Your task to perform on an android device: Add razer thresher to the cart on target.com Image 0: 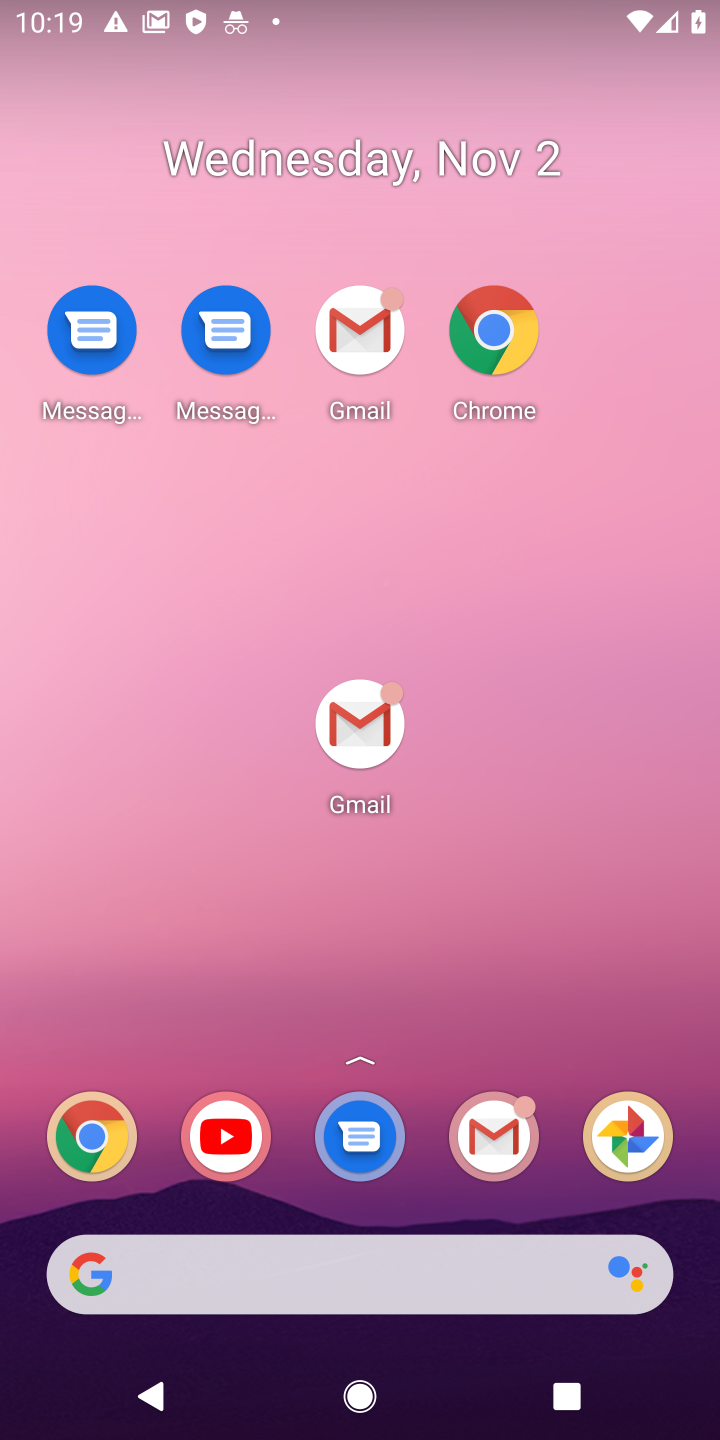
Step 0: drag from (271, 1162) to (300, 499)
Your task to perform on an android device: Add razer thresher to the cart on target.com Image 1: 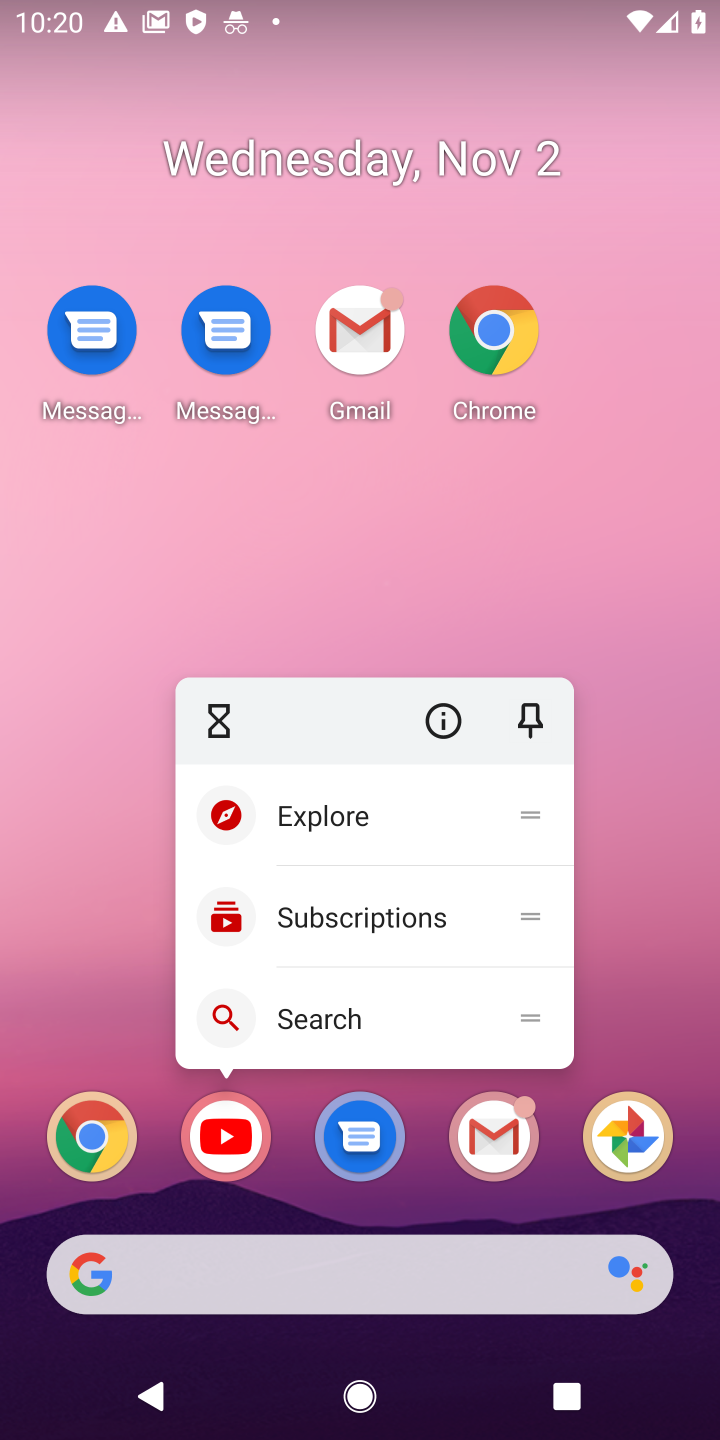
Step 1: click (173, 580)
Your task to perform on an android device: Add razer thresher to the cart on target.com Image 2: 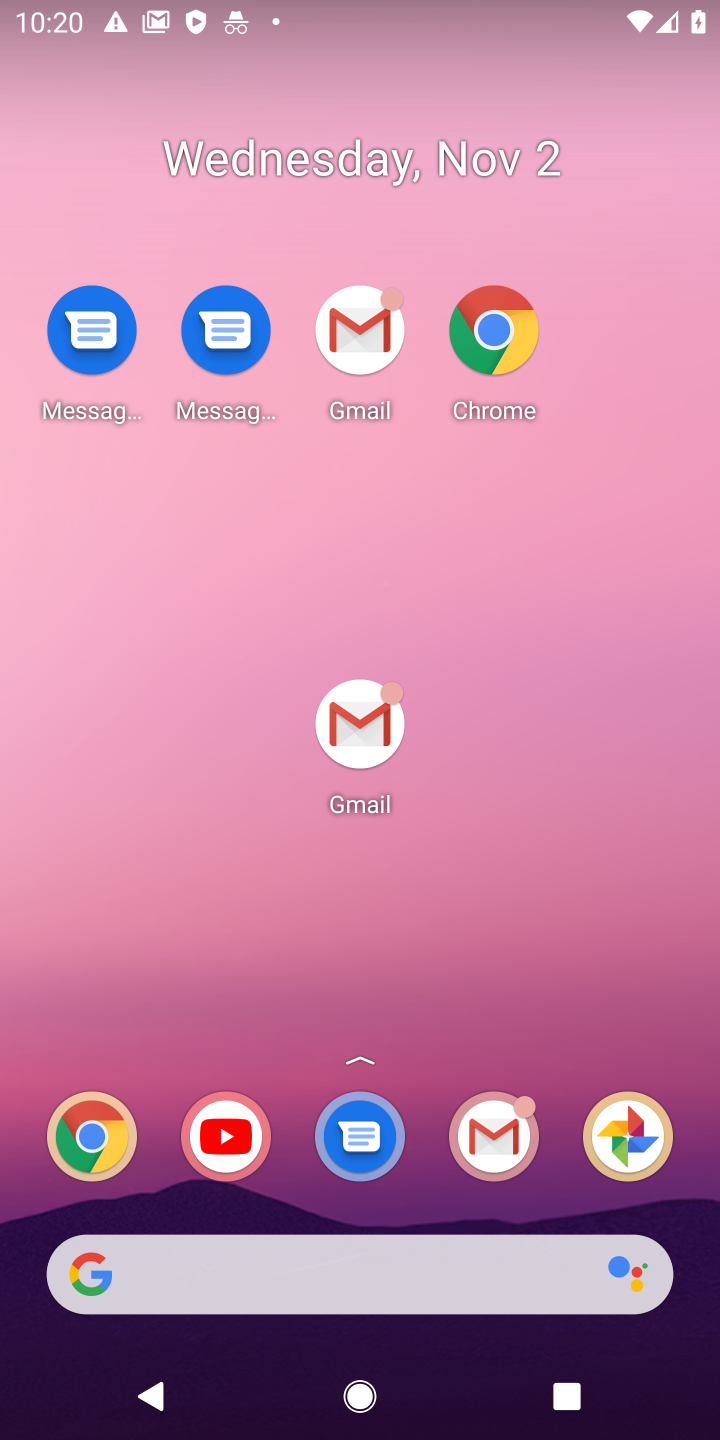
Step 2: drag from (286, 764) to (248, 148)
Your task to perform on an android device: Add razer thresher to the cart on target.com Image 3: 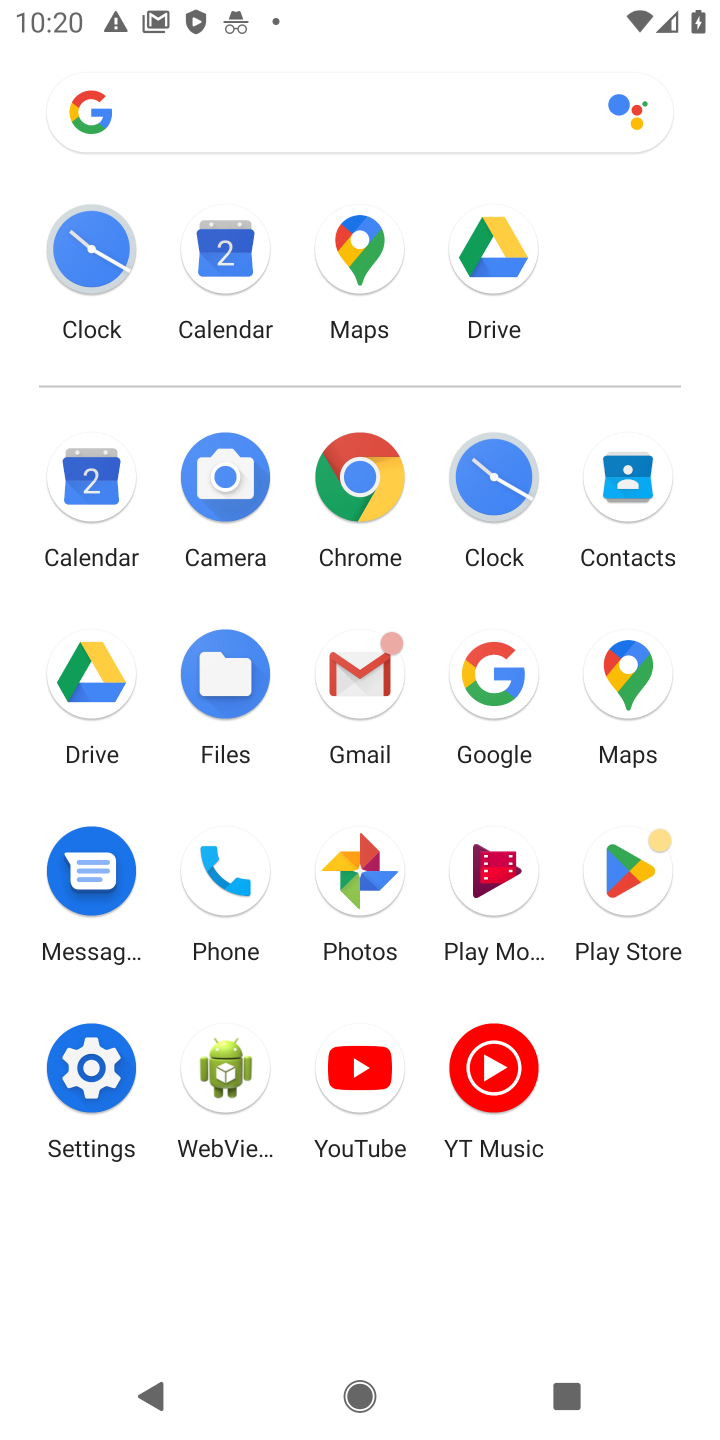
Step 3: click (498, 672)
Your task to perform on an android device: Add razer thresher to the cart on target.com Image 4: 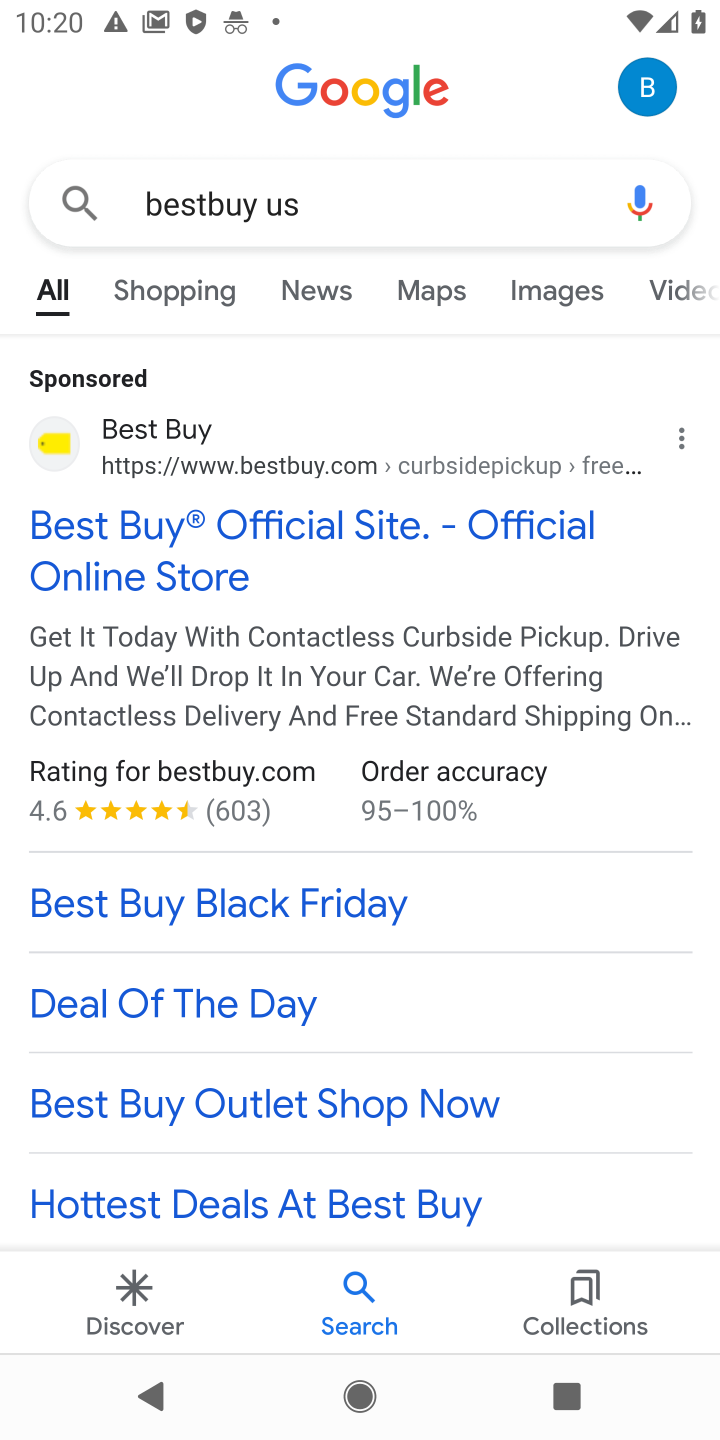
Step 4: click (364, 195)
Your task to perform on an android device: Add razer thresher to the cart on target.com Image 5: 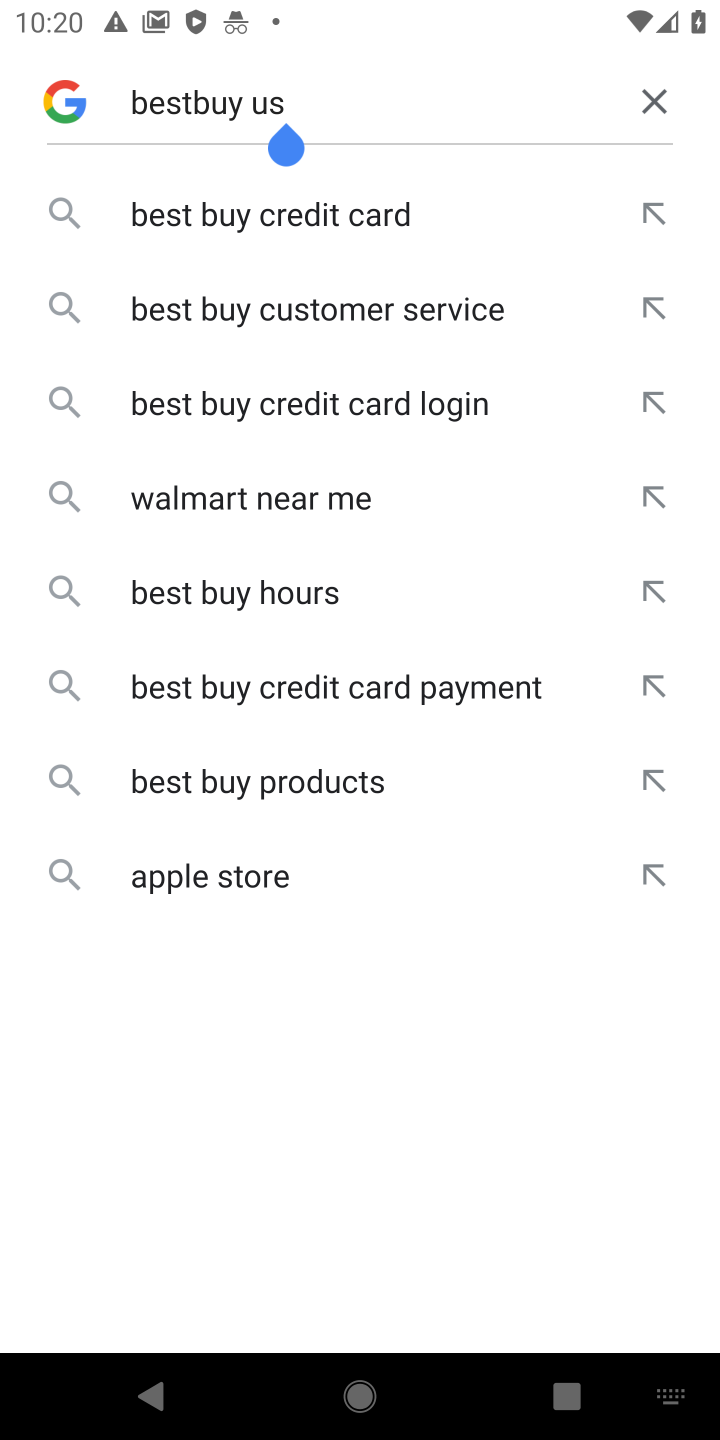
Step 5: click (642, 98)
Your task to perform on an android device: Add razer thresher to the cart on target.com Image 6: 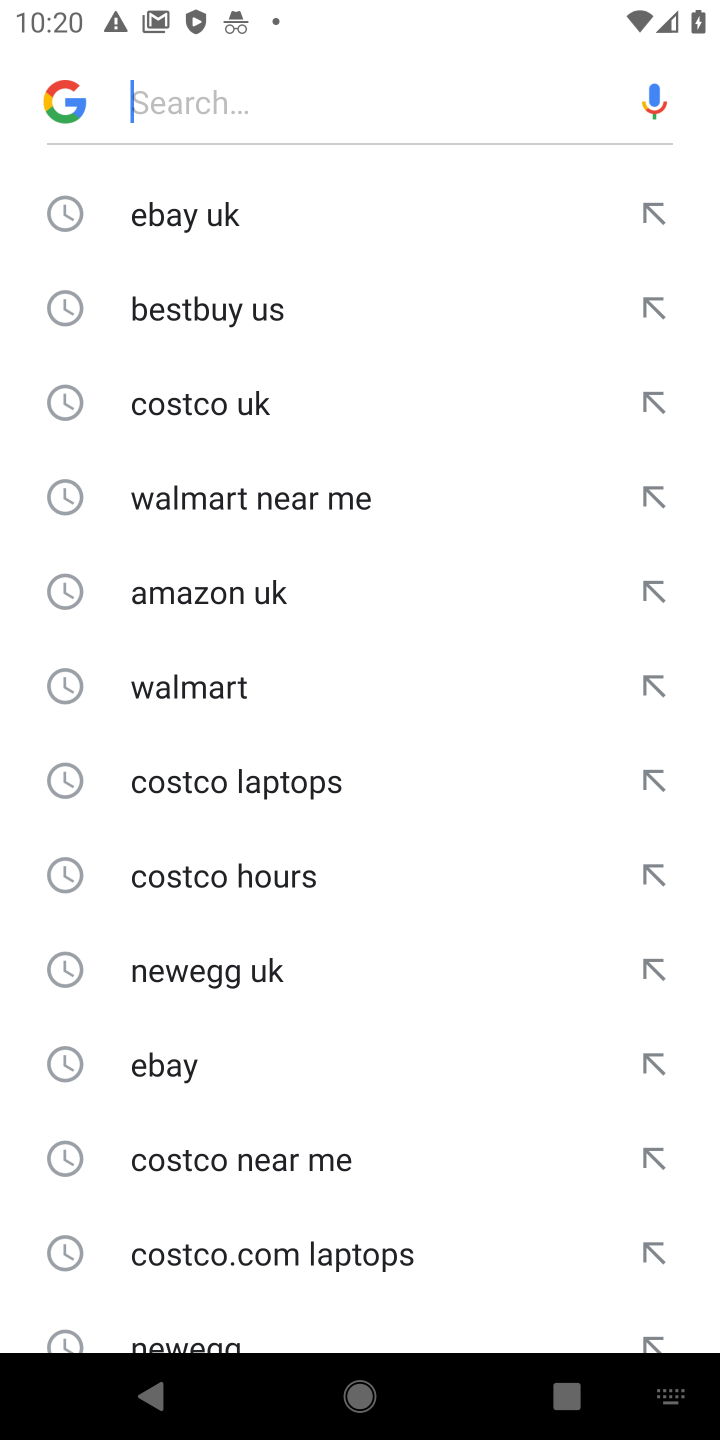
Step 6: click (399, 98)
Your task to perform on an android device: Add razer thresher to the cart on target.com Image 7: 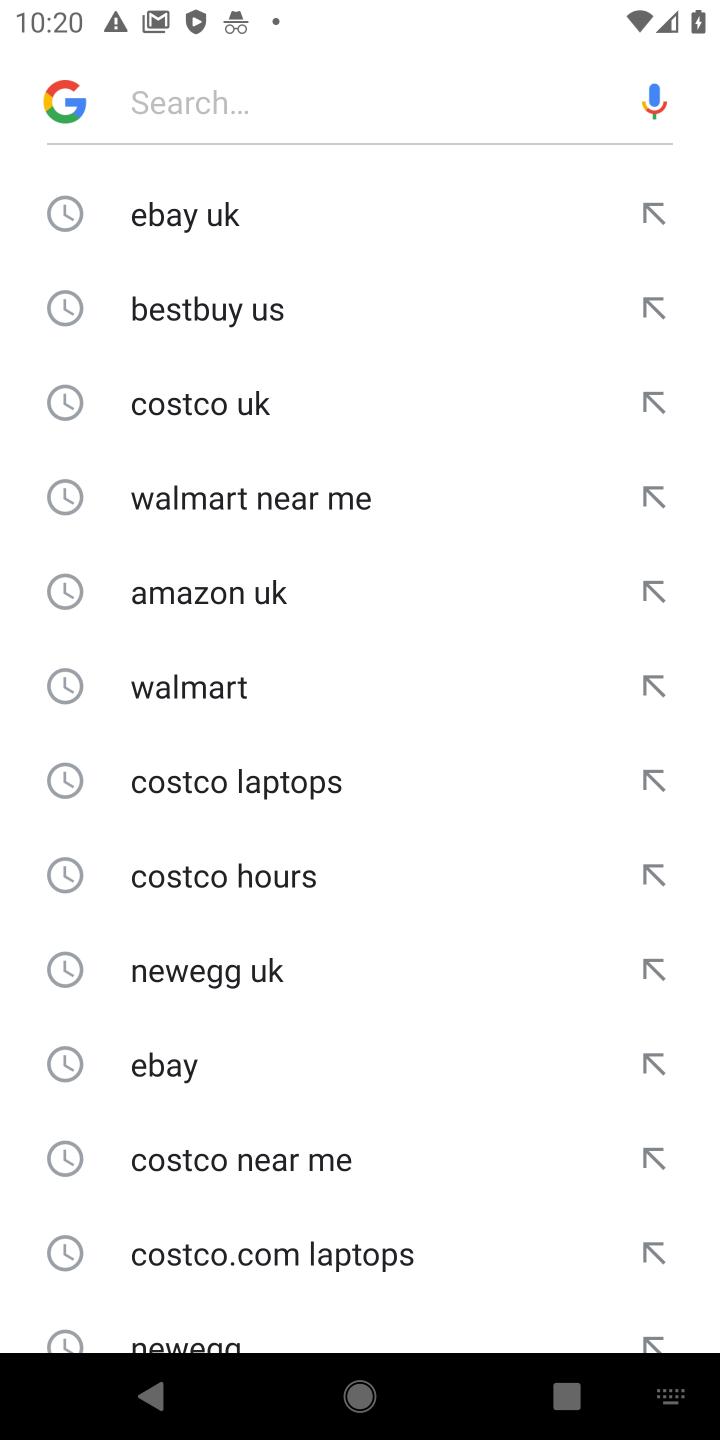
Step 7: type "target "
Your task to perform on an android device: Add razer thresher to the cart on target.com Image 8: 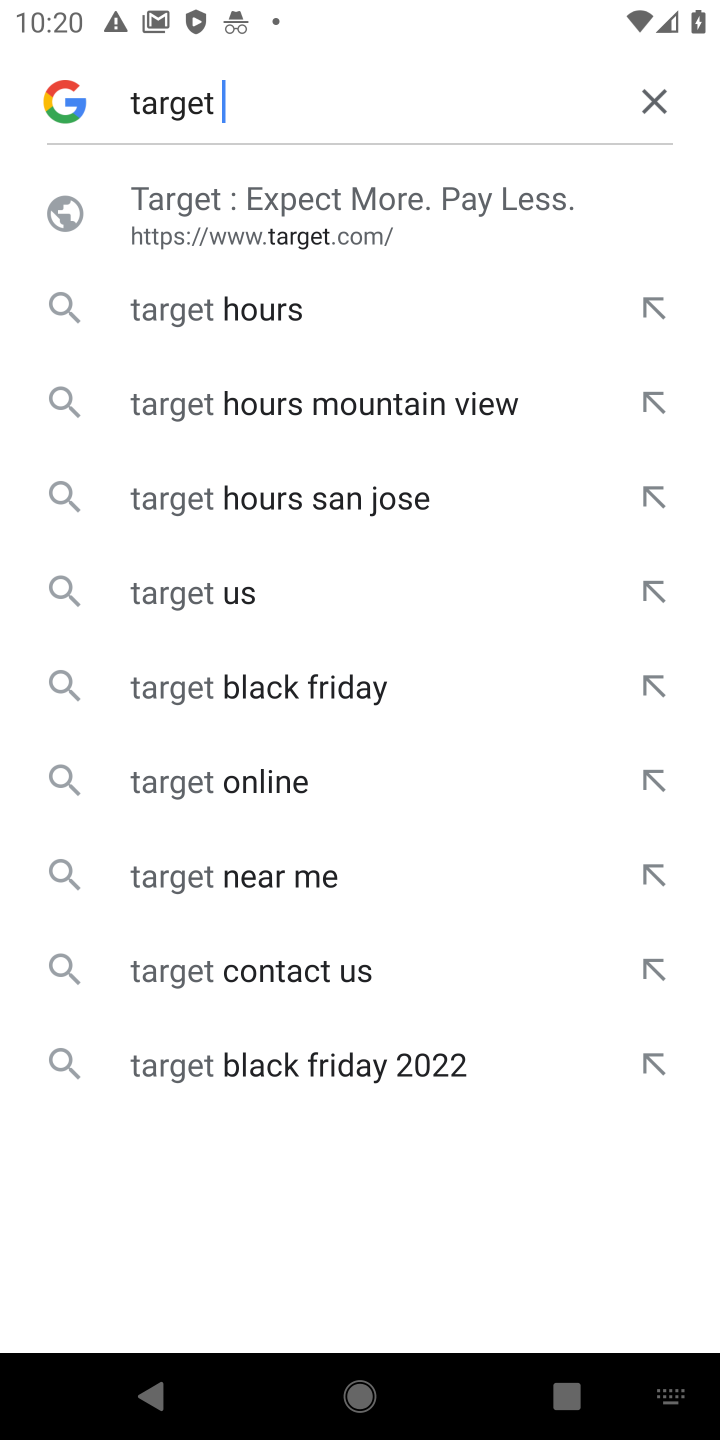
Step 8: click (205, 214)
Your task to perform on an android device: Add razer thresher to the cart on target.com Image 9: 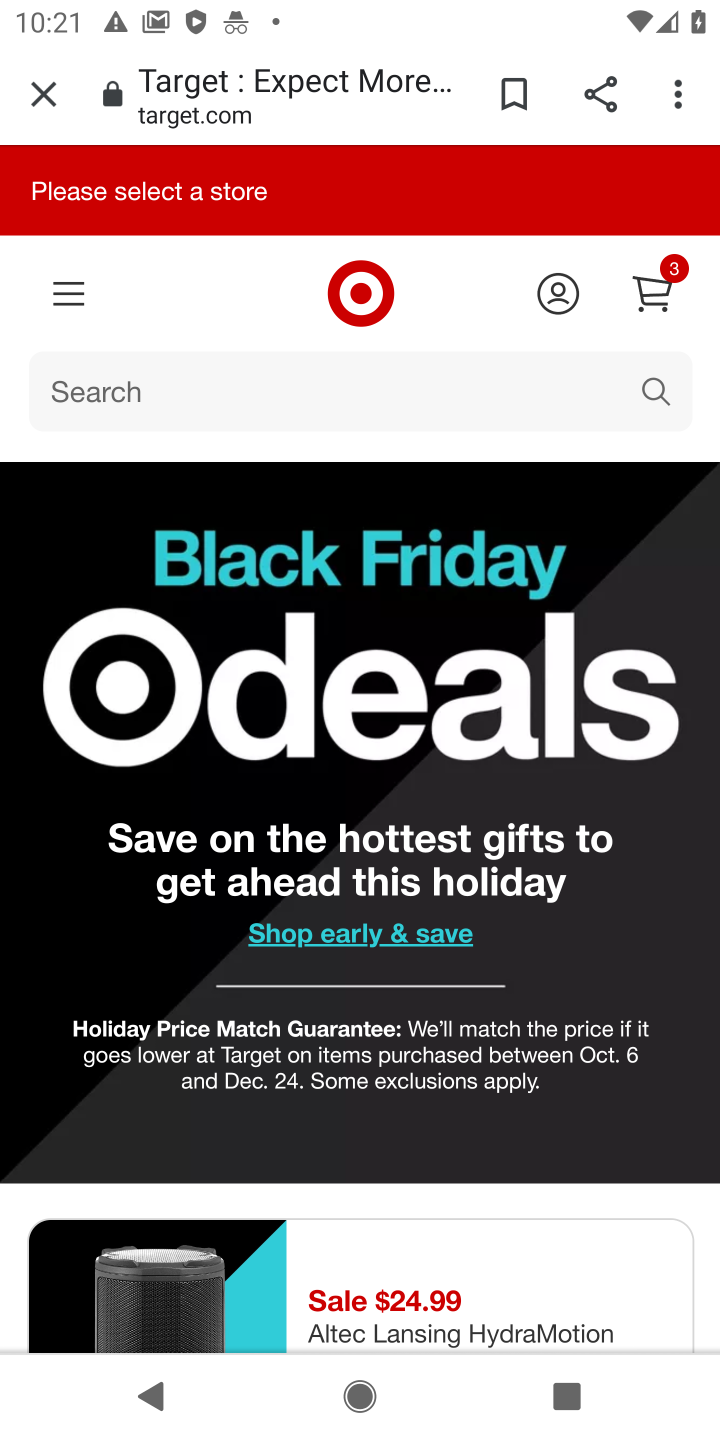
Step 9: click (218, 391)
Your task to perform on an android device: Add razer thresher to the cart on target.com Image 10: 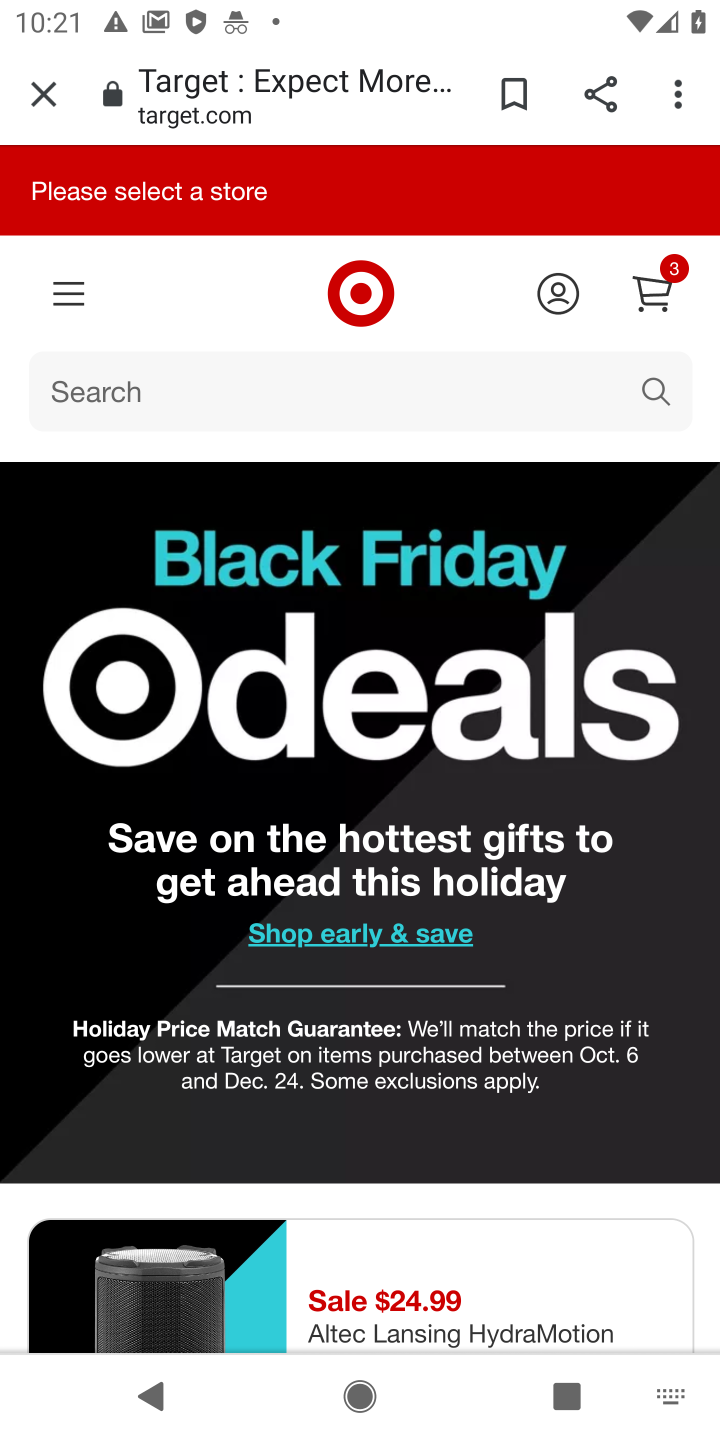
Step 10: click (323, 390)
Your task to perform on an android device: Add razer thresher to the cart on target.com Image 11: 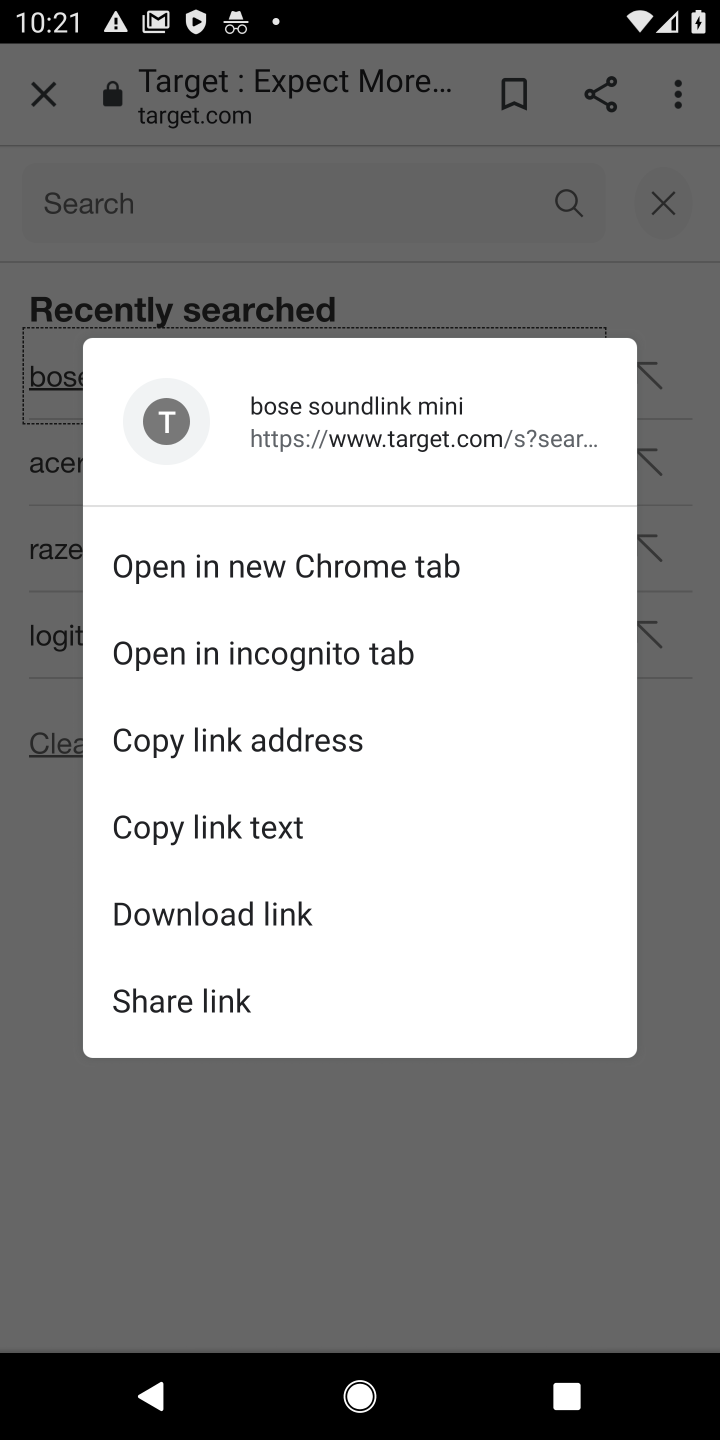
Step 11: click (300, 179)
Your task to perform on an android device: Add razer thresher to the cart on target.com Image 12: 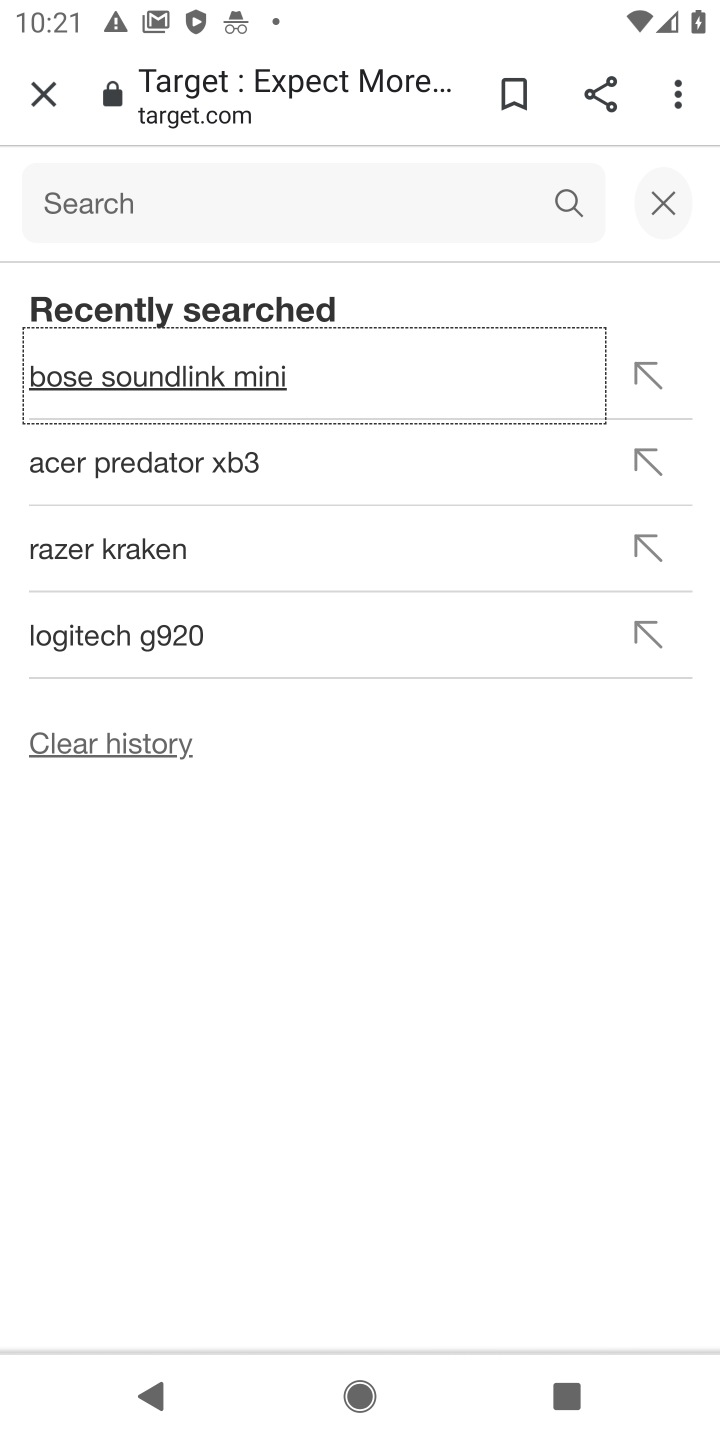
Step 12: click (379, 185)
Your task to perform on an android device: Add razer thresher to the cart on target.com Image 13: 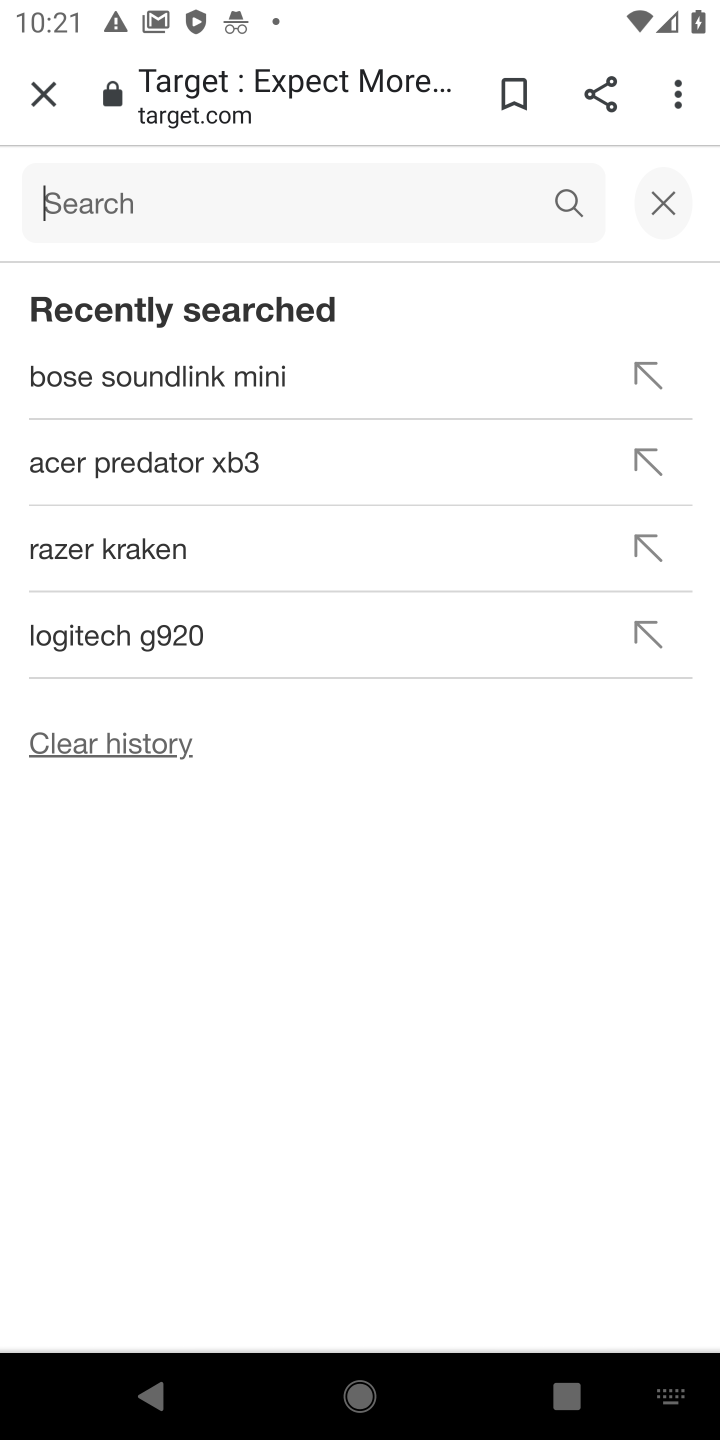
Step 13: type "razer thresher "
Your task to perform on an android device: Add razer thresher to the cart on target.com Image 14: 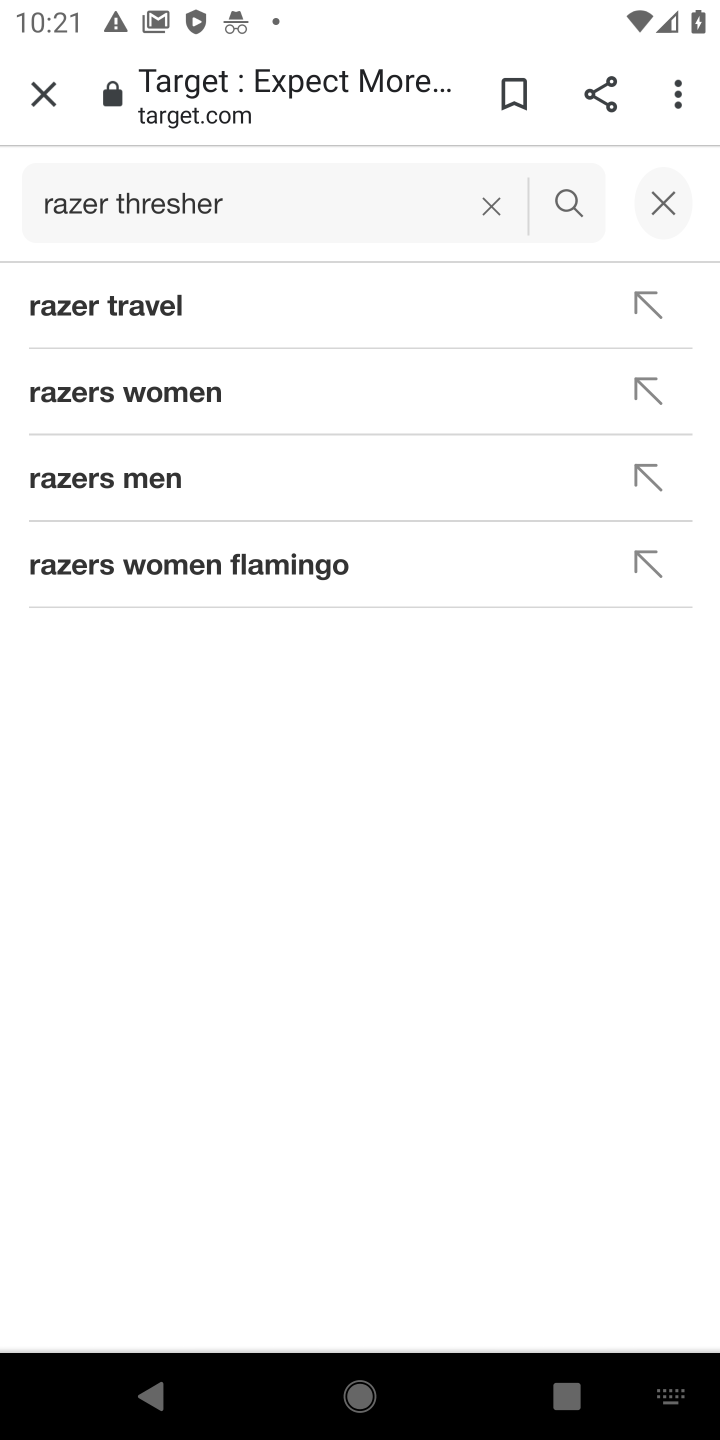
Step 14: click (566, 209)
Your task to perform on an android device: Add razer thresher to the cart on target.com Image 15: 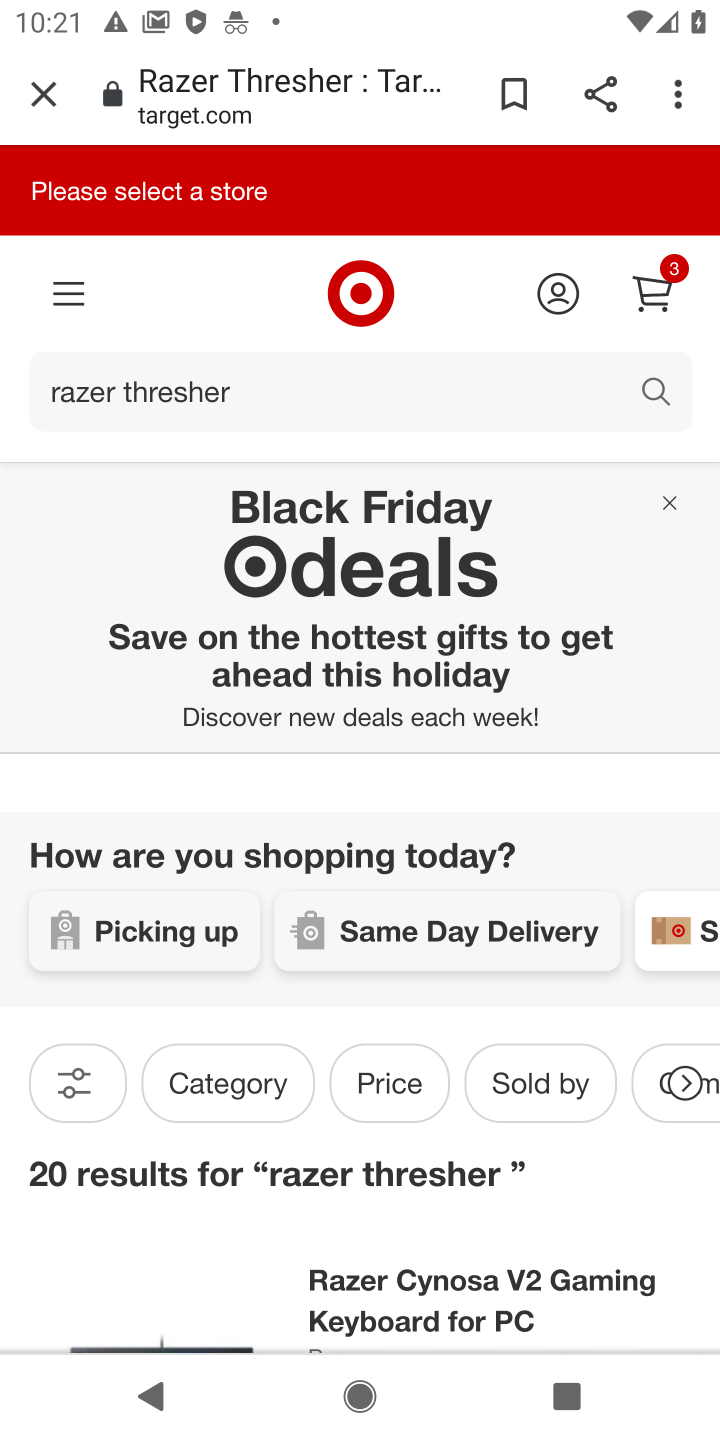
Step 15: drag from (397, 1235) to (449, 421)
Your task to perform on an android device: Add razer thresher to the cart on target.com Image 16: 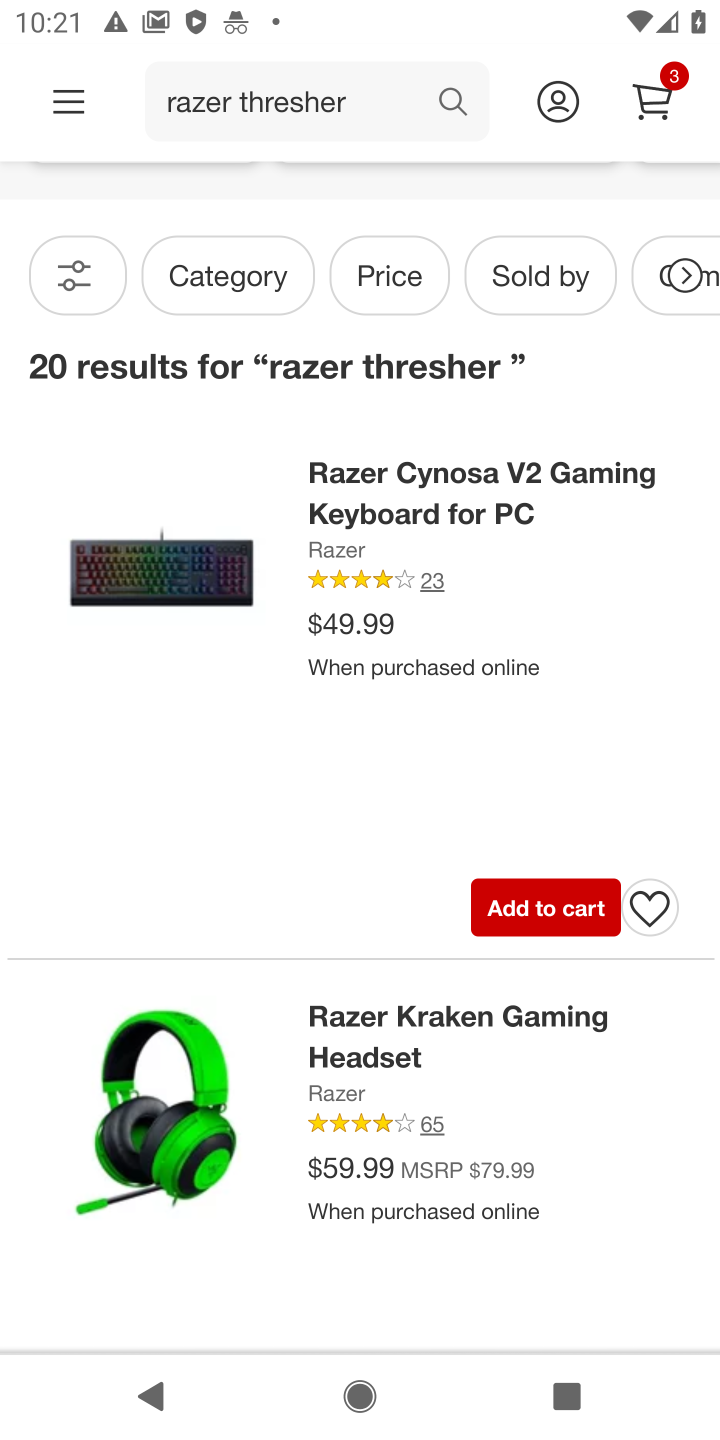
Step 16: drag from (393, 1181) to (458, 385)
Your task to perform on an android device: Add razer thresher to the cart on target.com Image 17: 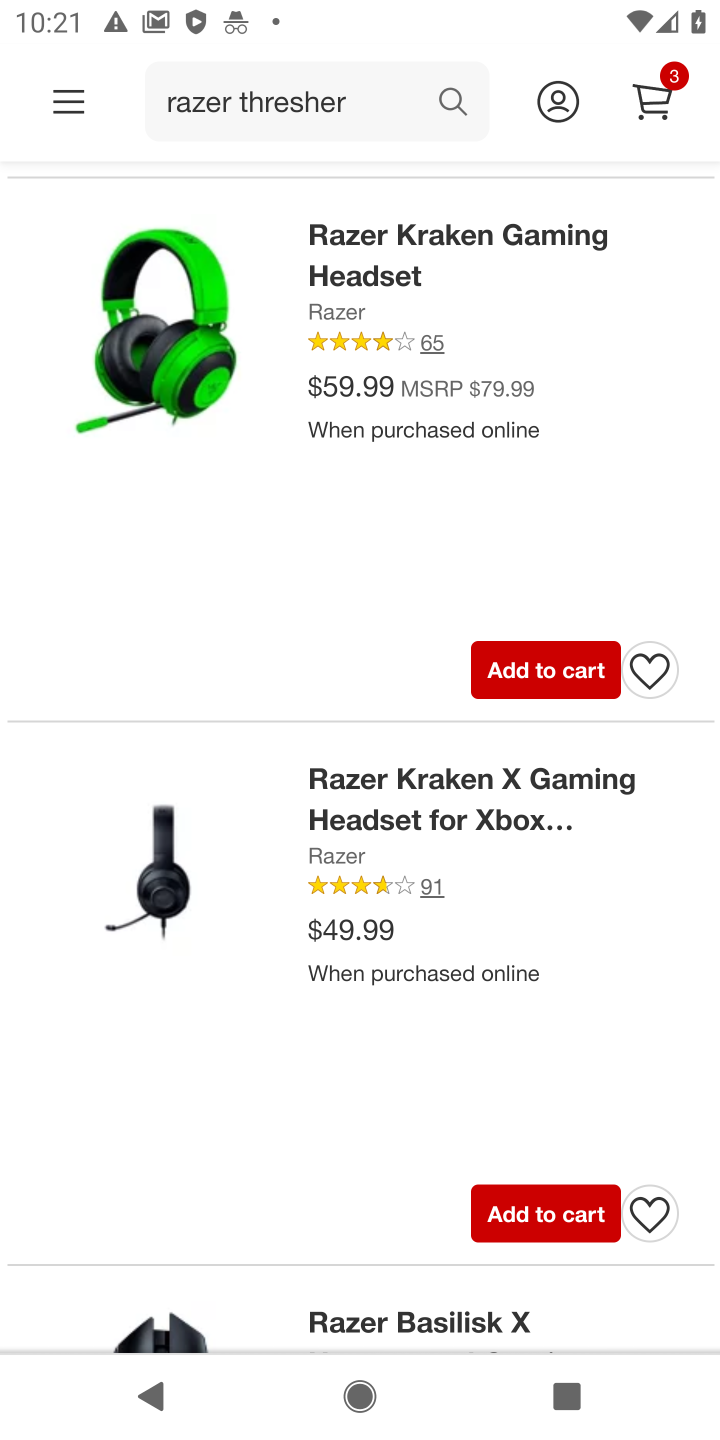
Step 17: drag from (302, 980) to (460, 195)
Your task to perform on an android device: Add razer thresher to the cart on target.com Image 18: 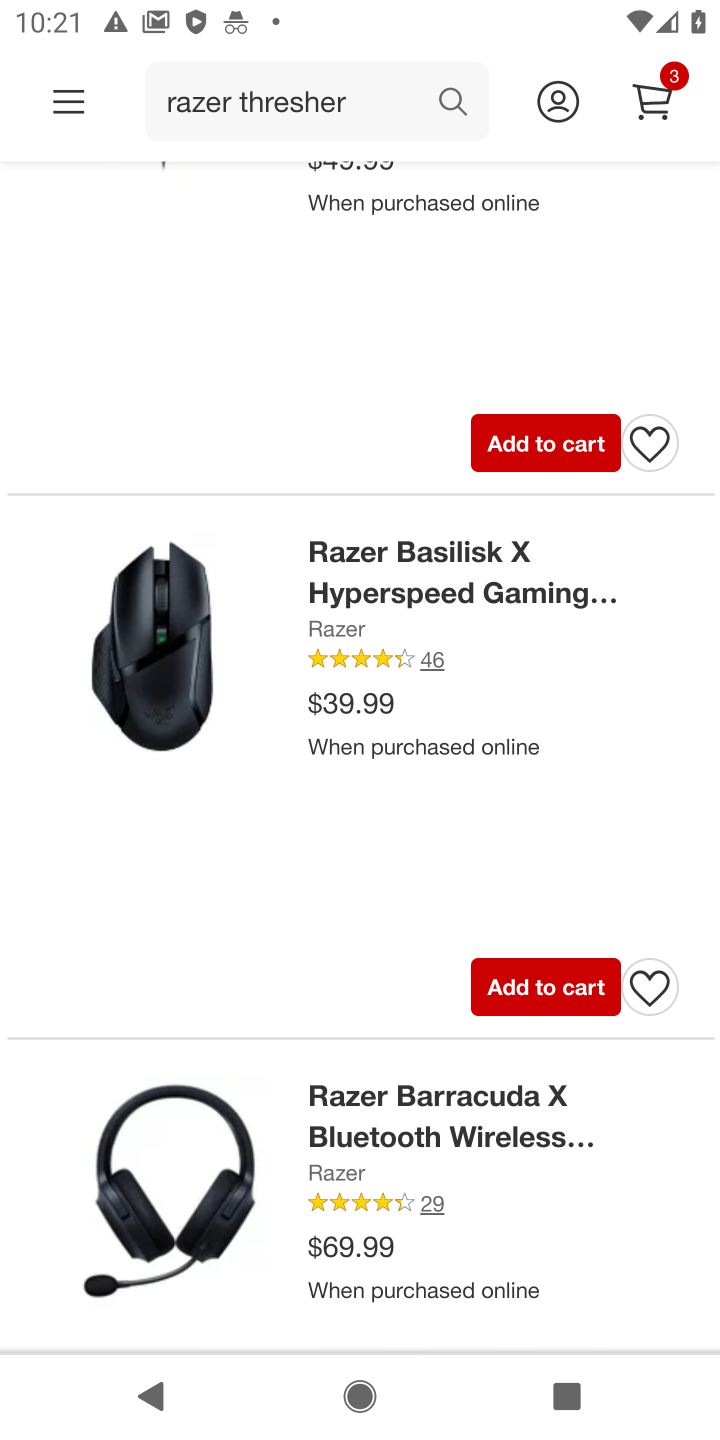
Step 18: drag from (309, 170) to (289, 469)
Your task to perform on an android device: Add razer thresher to the cart on target.com Image 19: 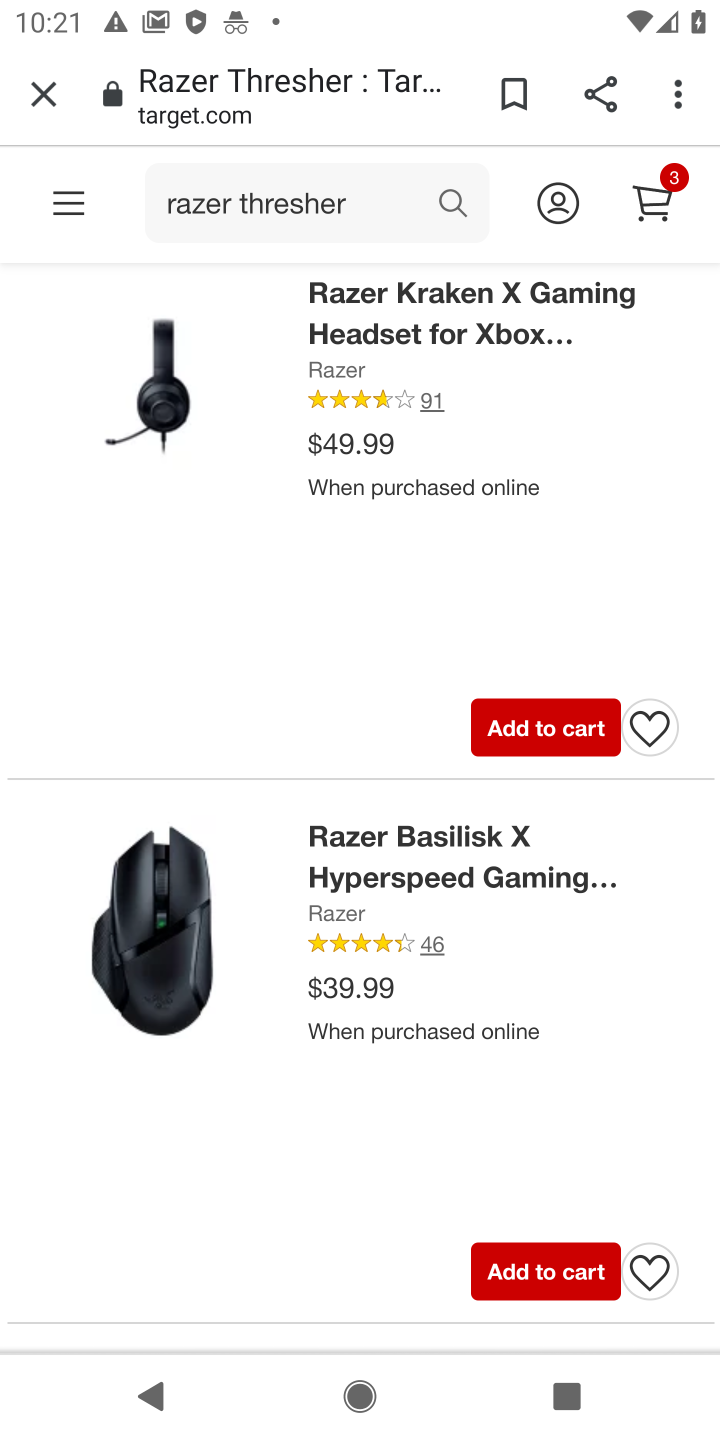
Step 19: click (459, 200)
Your task to perform on an android device: Add razer thresher to the cart on target.com Image 20: 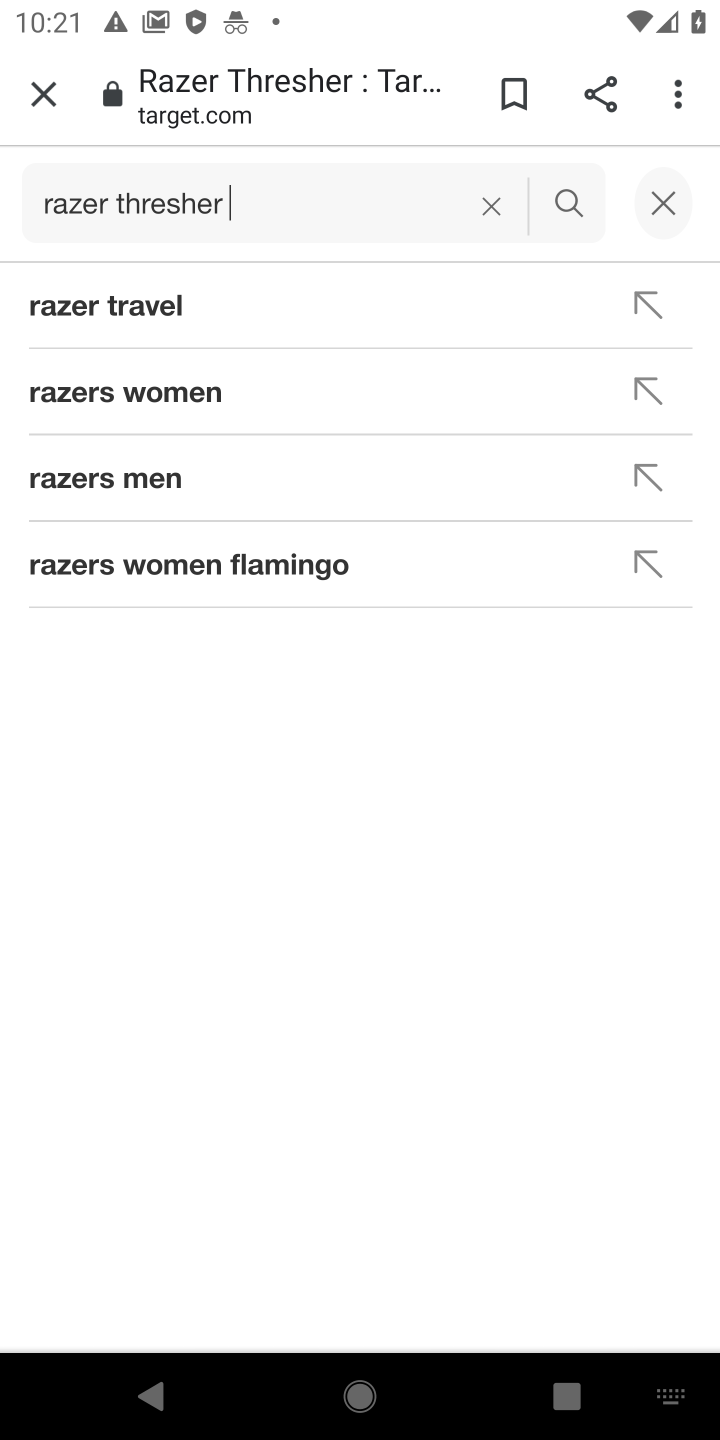
Step 20: click (557, 195)
Your task to perform on an android device: Add razer thresher to the cart on target.com Image 21: 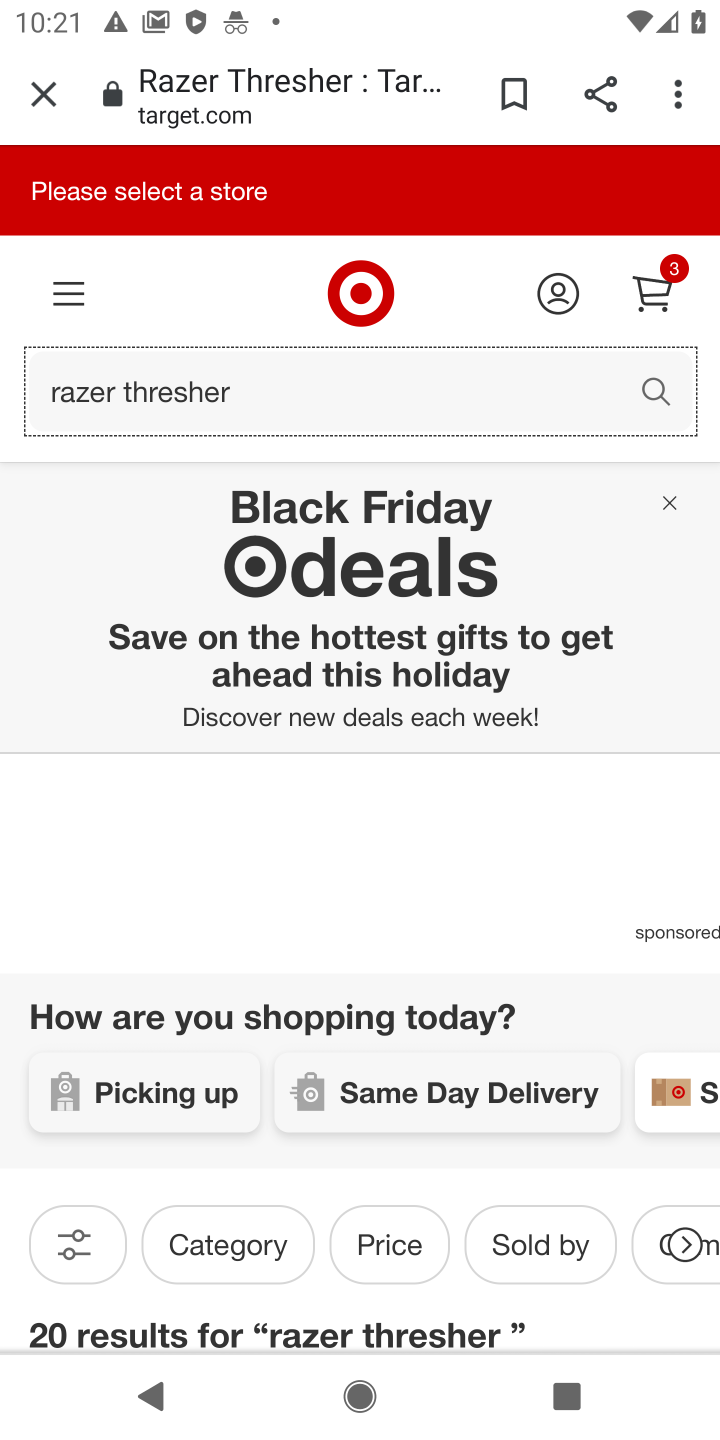
Step 21: drag from (333, 1147) to (386, 398)
Your task to perform on an android device: Add razer thresher to the cart on target.com Image 22: 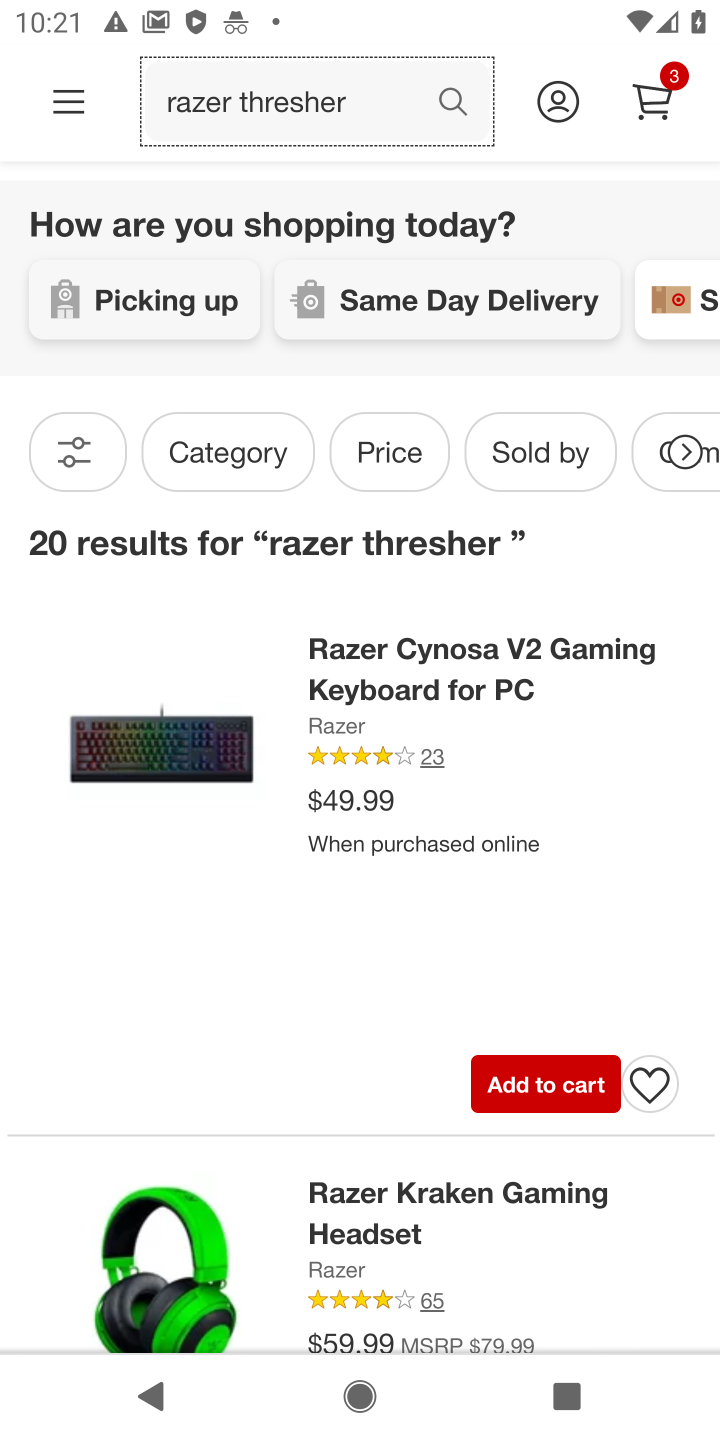
Step 22: click (501, 1082)
Your task to perform on an android device: Add razer thresher to the cart on target.com Image 23: 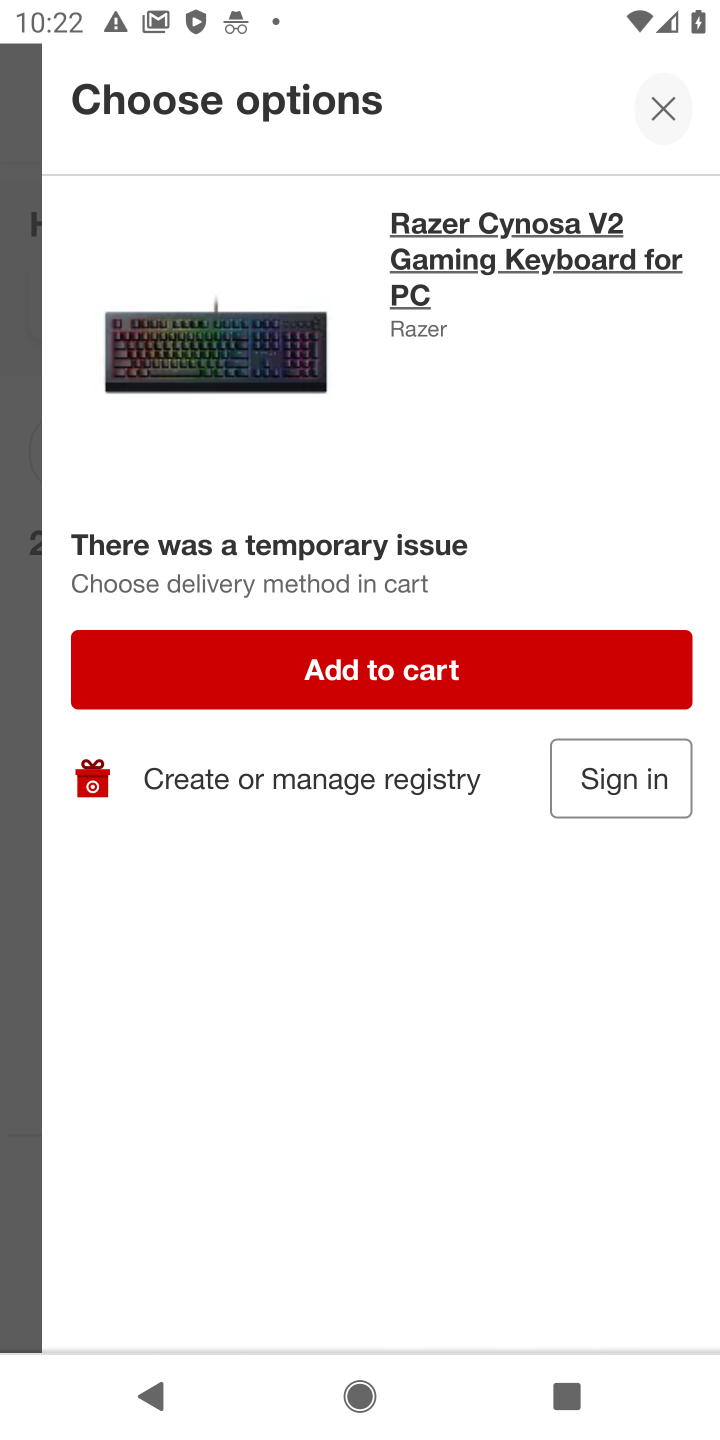
Step 23: click (467, 659)
Your task to perform on an android device: Add razer thresher to the cart on target.com Image 24: 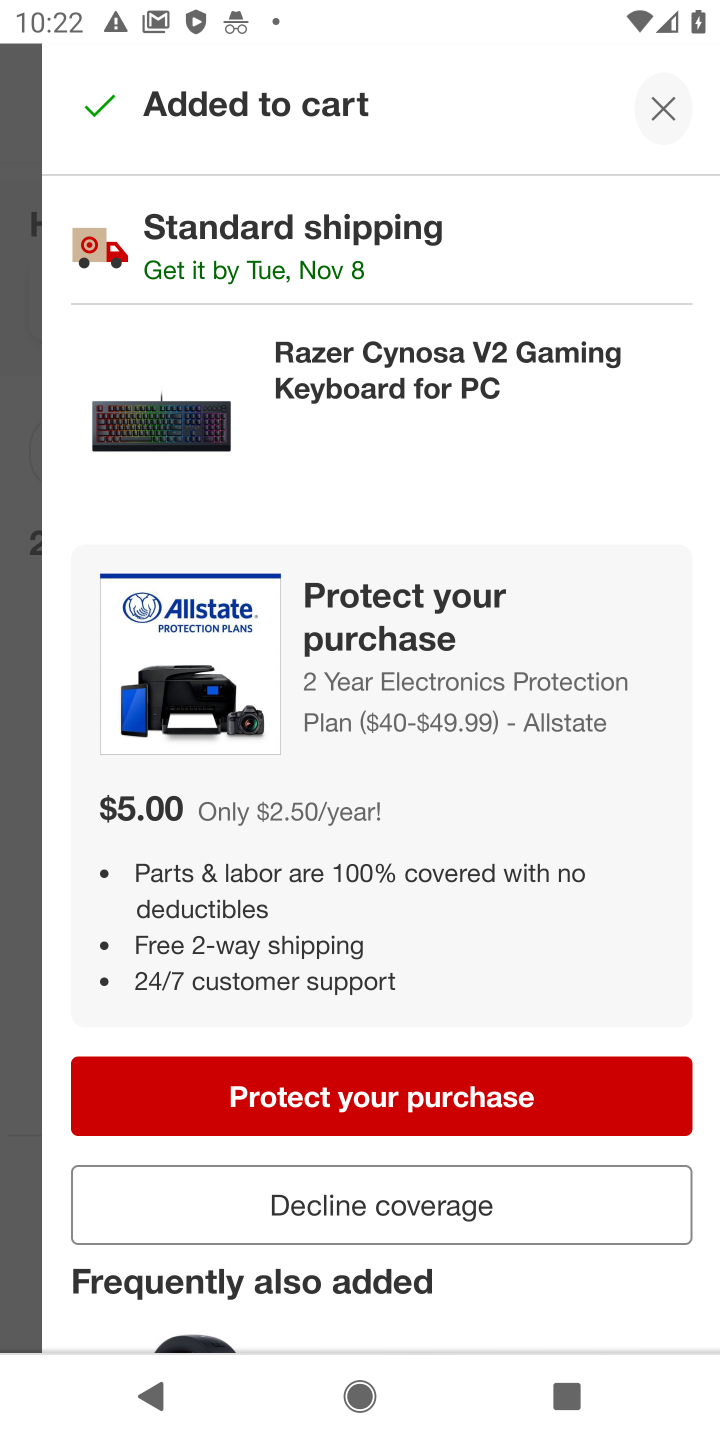
Step 24: task complete